Your task to perform on an android device: Open eBay Image 0: 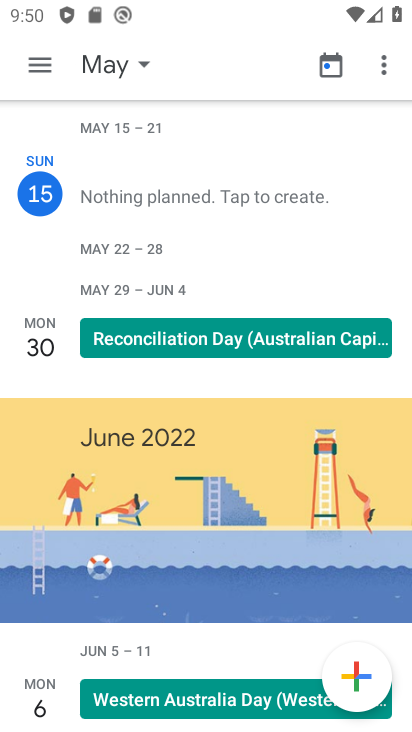
Step 0: press back button
Your task to perform on an android device: Open eBay Image 1: 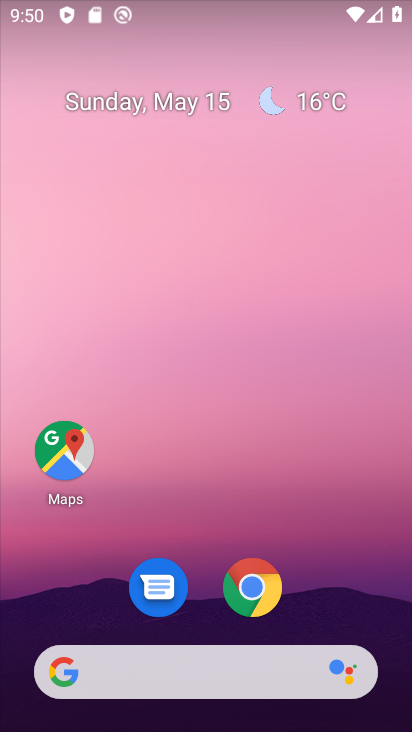
Step 1: drag from (297, 373) to (244, 9)
Your task to perform on an android device: Open eBay Image 2: 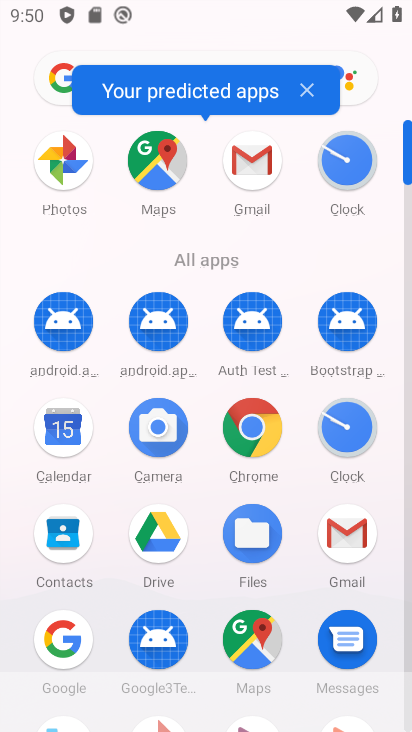
Step 2: drag from (1, 438) to (9, 167)
Your task to perform on an android device: Open eBay Image 3: 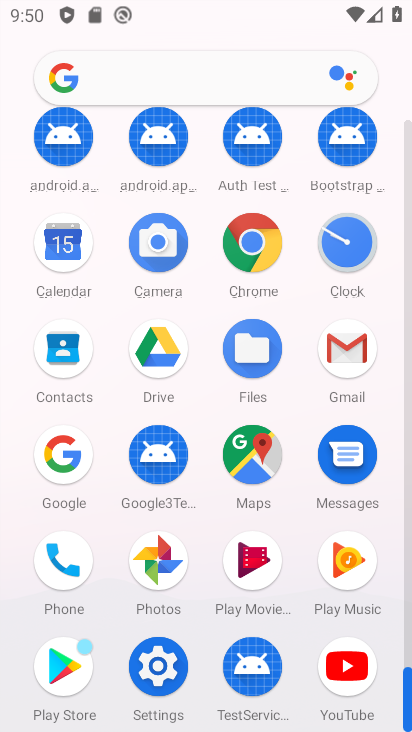
Step 3: click (255, 241)
Your task to perform on an android device: Open eBay Image 4: 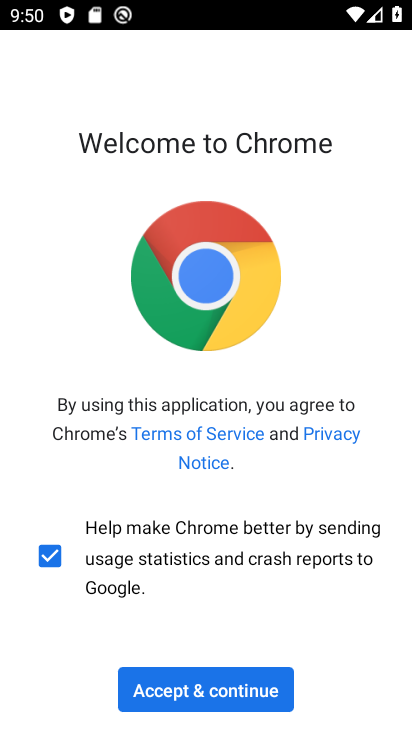
Step 4: click (215, 692)
Your task to perform on an android device: Open eBay Image 5: 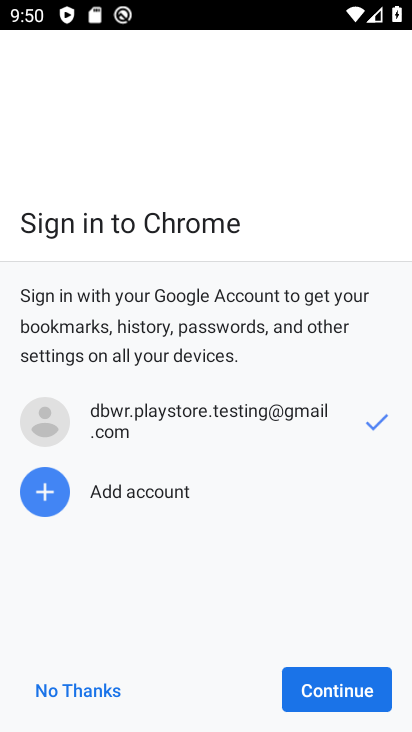
Step 5: click (316, 675)
Your task to perform on an android device: Open eBay Image 6: 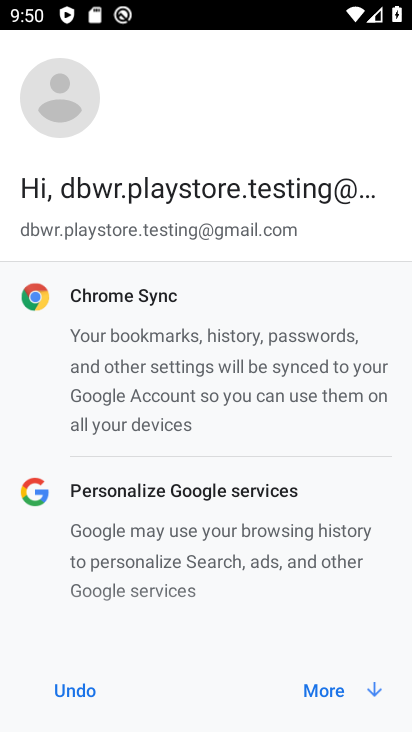
Step 6: click (320, 695)
Your task to perform on an android device: Open eBay Image 7: 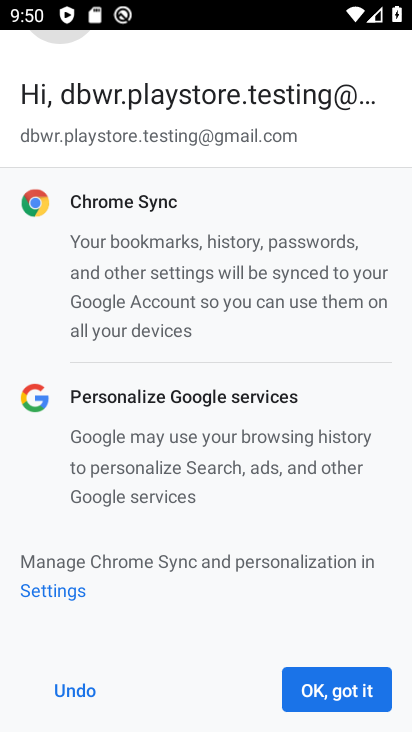
Step 7: click (321, 694)
Your task to perform on an android device: Open eBay Image 8: 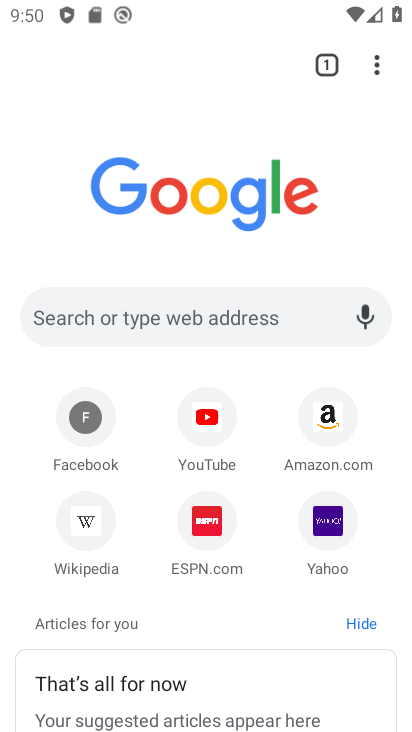
Step 8: click (158, 318)
Your task to perform on an android device: Open eBay Image 9: 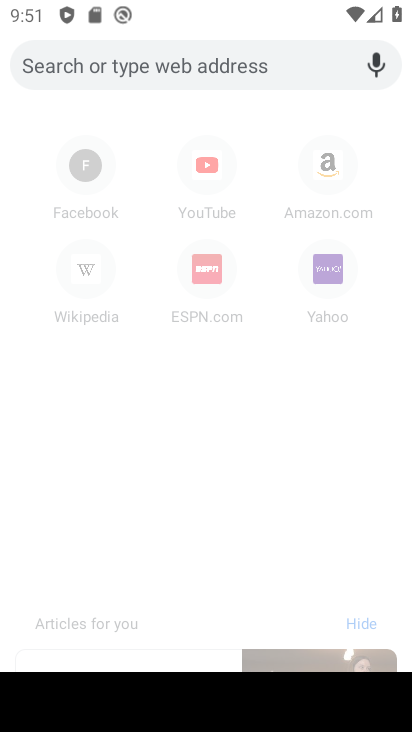
Step 9: type "ebay"
Your task to perform on an android device: Open eBay Image 10: 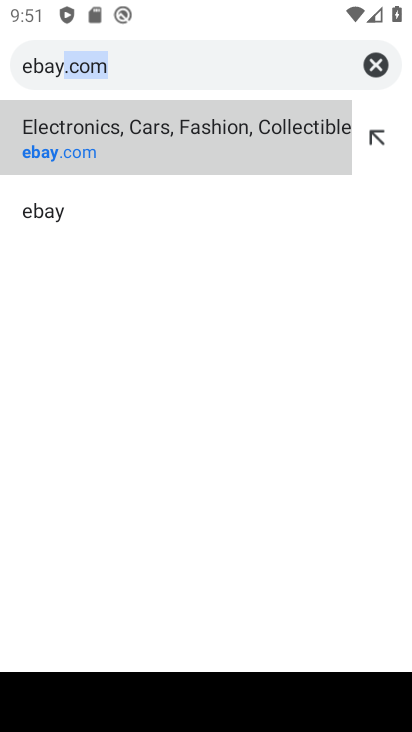
Step 10: click (101, 139)
Your task to perform on an android device: Open eBay Image 11: 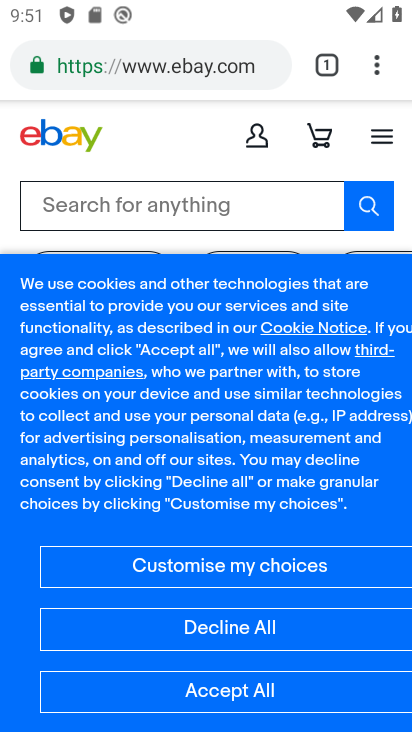
Step 11: click (198, 684)
Your task to perform on an android device: Open eBay Image 12: 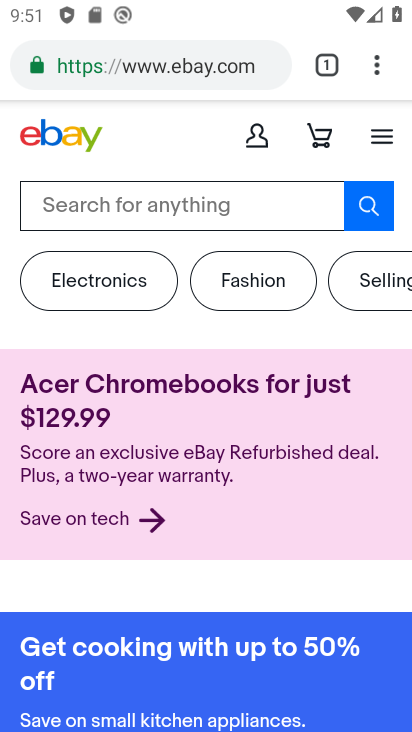
Step 12: task complete